Your task to perform on an android device: manage bookmarks in the chrome app Image 0: 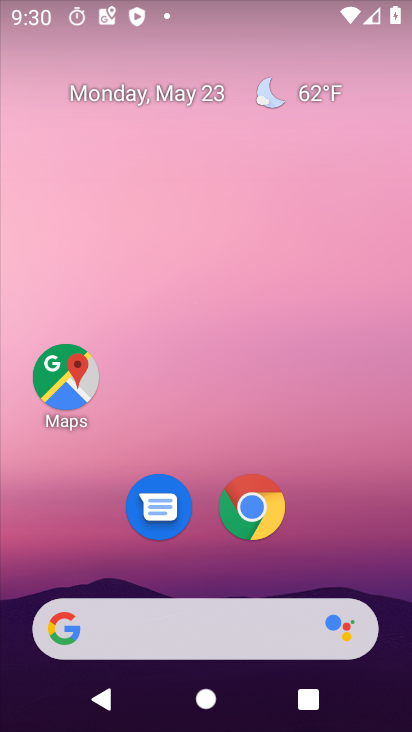
Step 0: click (251, 508)
Your task to perform on an android device: manage bookmarks in the chrome app Image 1: 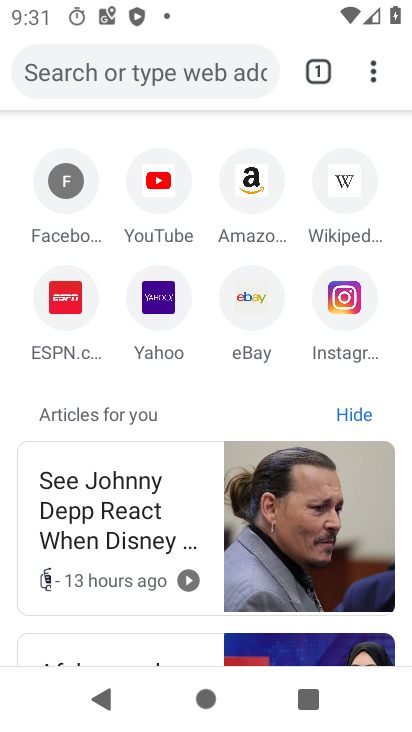
Step 1: click (371, 70)
Your task to perform on an android device: manage bookmarks in the chrome app Image 2: 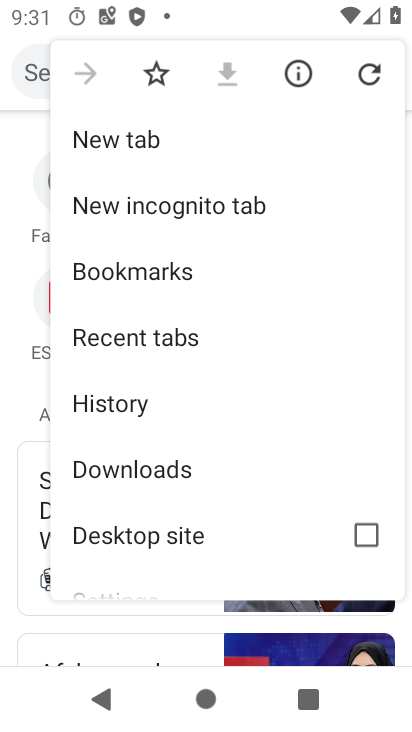
Step 2: click (162, 269)
Your task to perform on an android device: manage bookmarks in the chrome app Image 3: 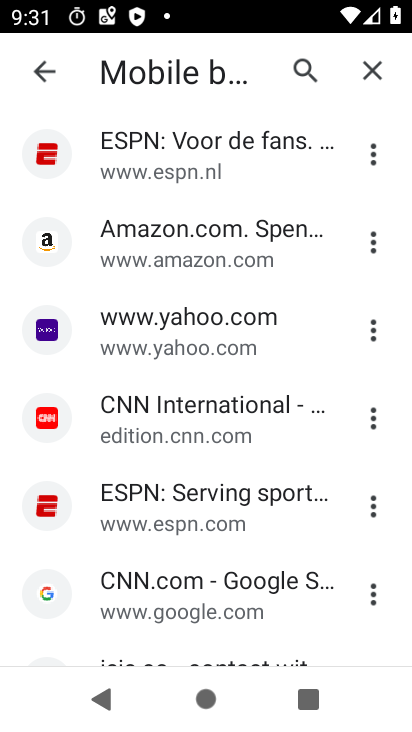
Step 3: click (367, 239)
Your task to perform on an android device: manage bookmarks in the chrome app Image 4: 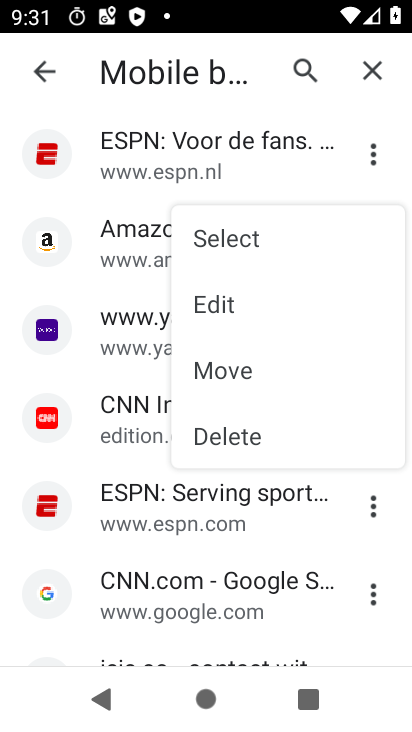
Step 4: click (218, 431)
Your task to perform on an android device: manage bookmarks in the chrome app Image 5: 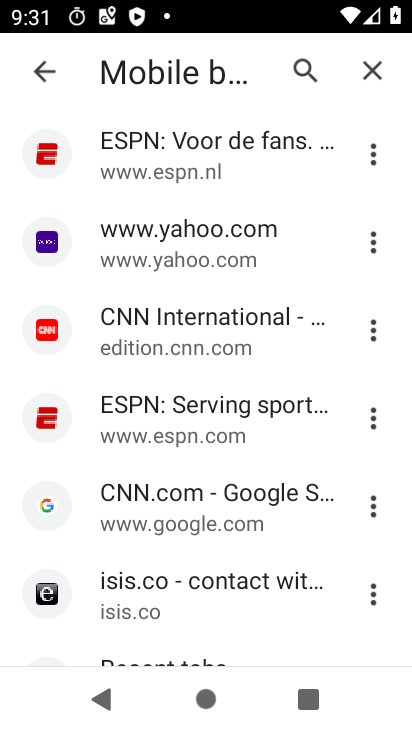
Step 5: task complete